Your task to perform on an android device: open sync settings in chrome Image 0: 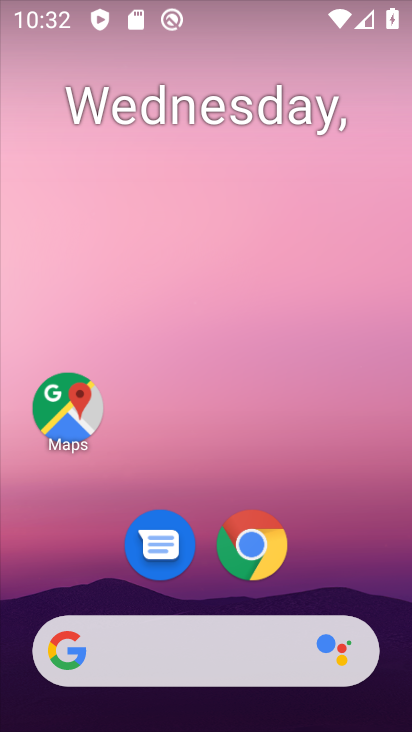
Step 0: click (252, 539)
Your task to perform on an android device: open sync settings in chrome Image 1: 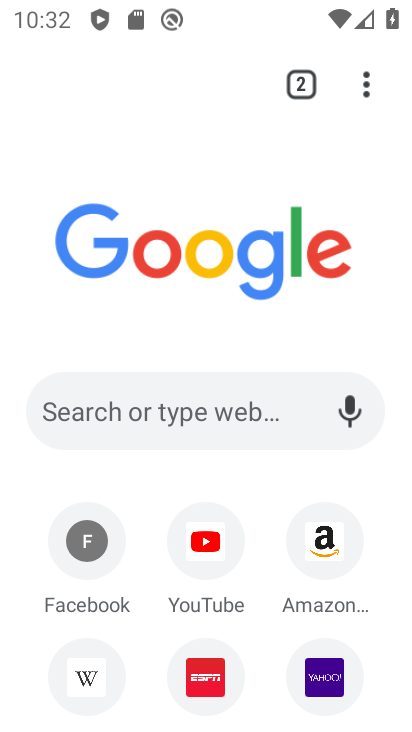
Step 1: click (378, 83)
Your task to perform on an android device: open sync settings in chrome Image 2: 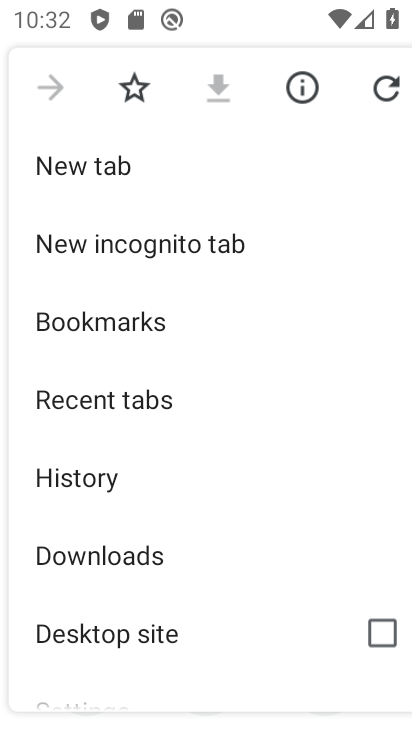
Step 2: drag from (292, 653) to (309, 134)
Your task to perform on an android device: open sync settings in chrome Image 3: 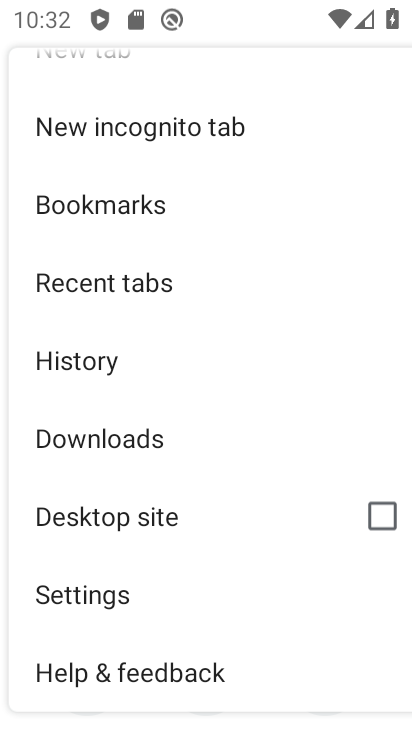
Step 3: click (181, 588)
Your task to perform on an android device: open sync settings in chrome Image 4: 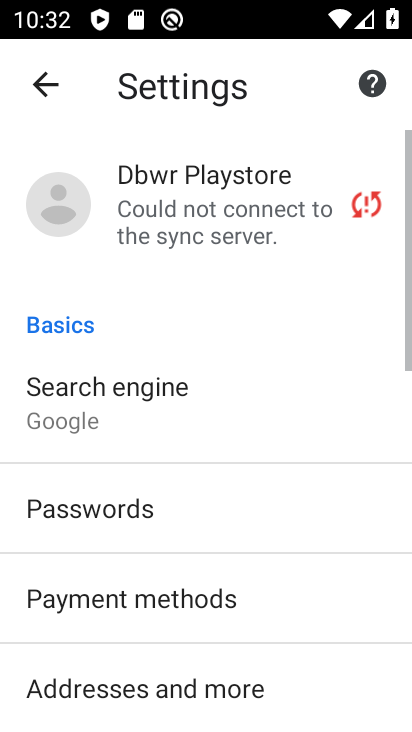
Step 4: click (201, 208)
Your task to perform on an android device: open sync settings in chrome Image 5: 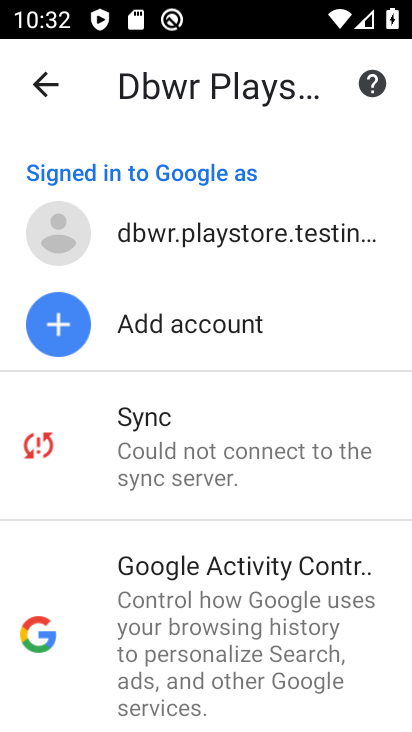
Step 5: task complete